Your task to perform on an android device: turn off wifi Image 0: 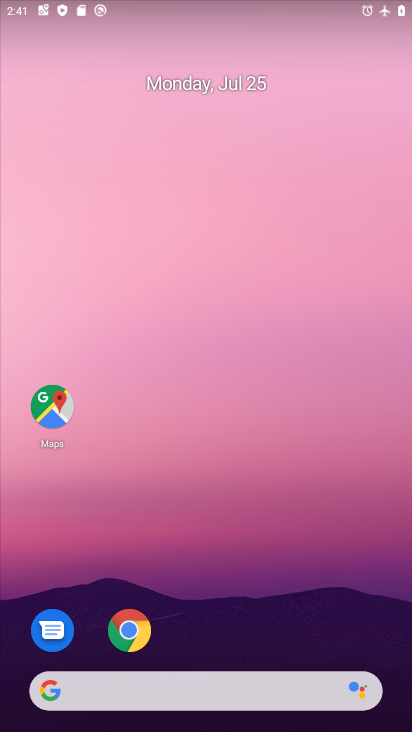
Step 0: drag from (285, 611) to (225, 227)
Your task to perform on an android device: turn off wifi Image 1: 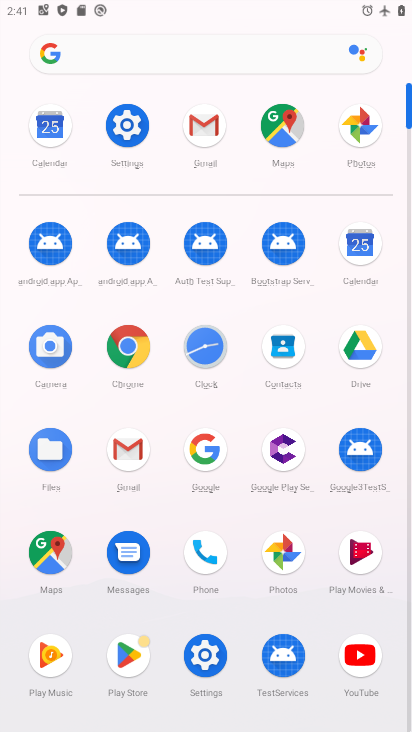
Step 1: click (113, 158)
Your task to perform on an android device: turn off wifi Image 2: 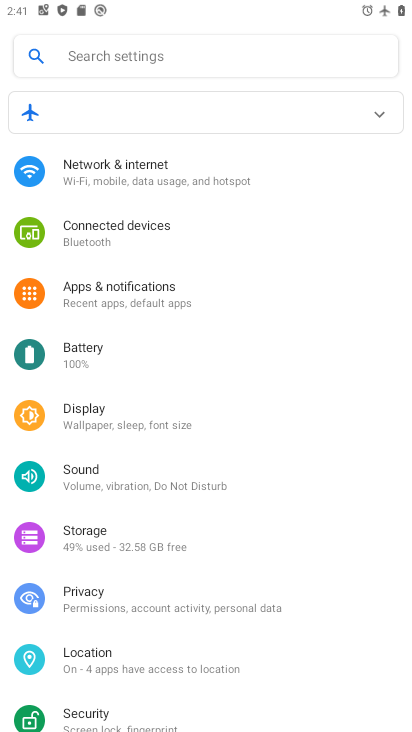
Step 2: click (60, 182)
Your task to perform on an android device: turn off wifi Image 3: 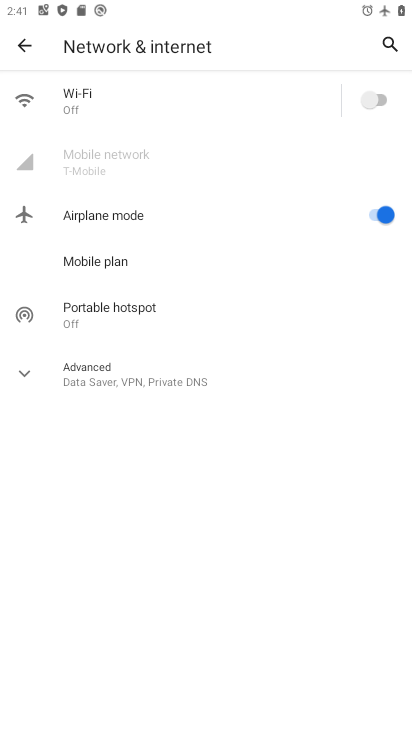
Step 3: click (135, 114)
Your task to perform on an android device: turn off wifi Image 4: 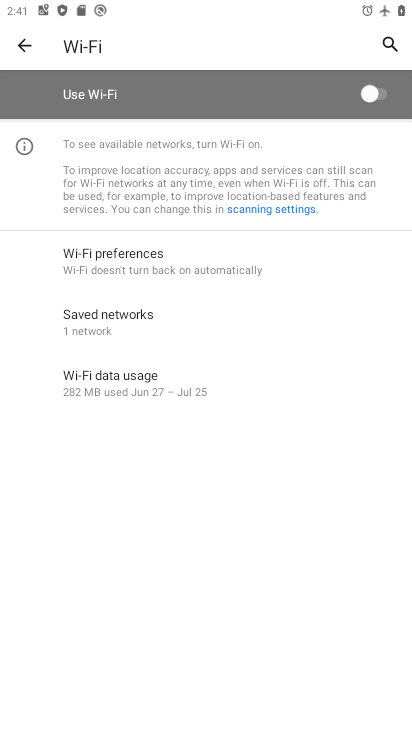
Step 4: task complete